Your task to perform on an android device: turn pop-ups off in chrome Image 0: 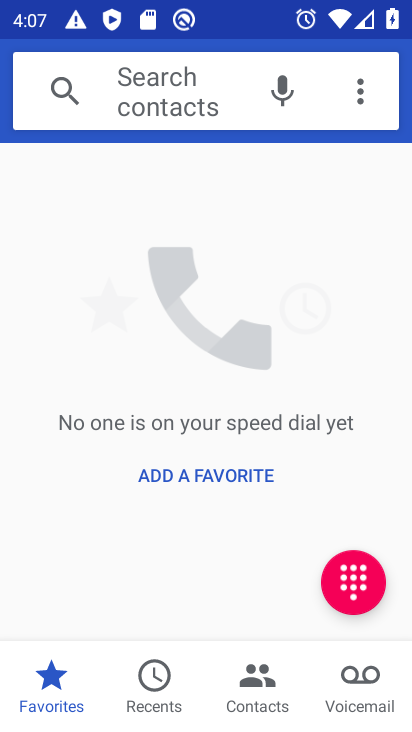
Step 0: press home button
Your task to perform on an android device: turn pop-ups off in chrome Image 1: 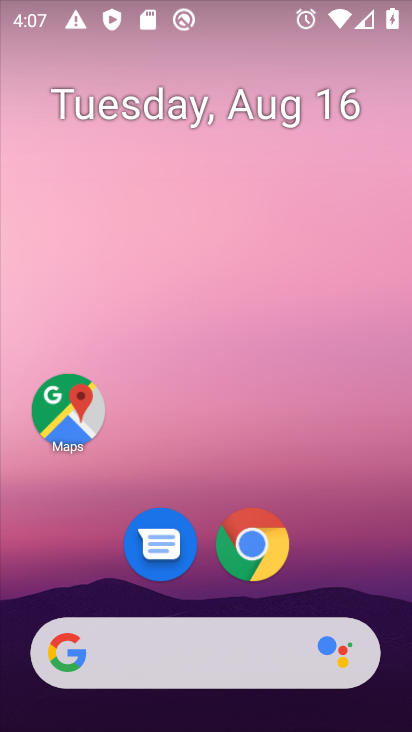
Step 1: click (220, 546)
Your task to perform on an android device: turn pop-ups off in chrome Image 2: 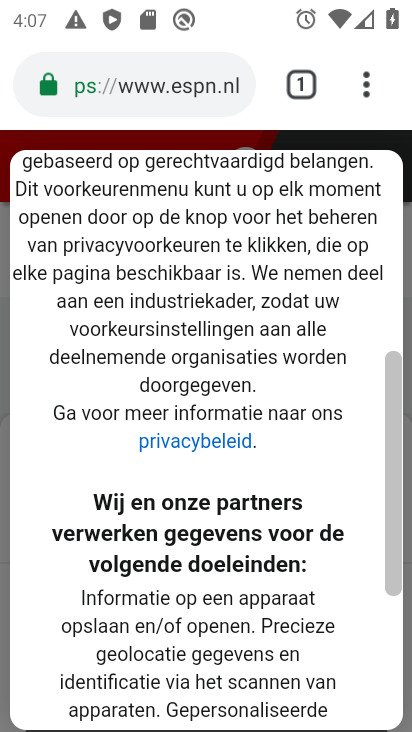
Step 2: click (363, 94)
Your task to perform on an android device: turn pop-ups off in chrome Image 3: 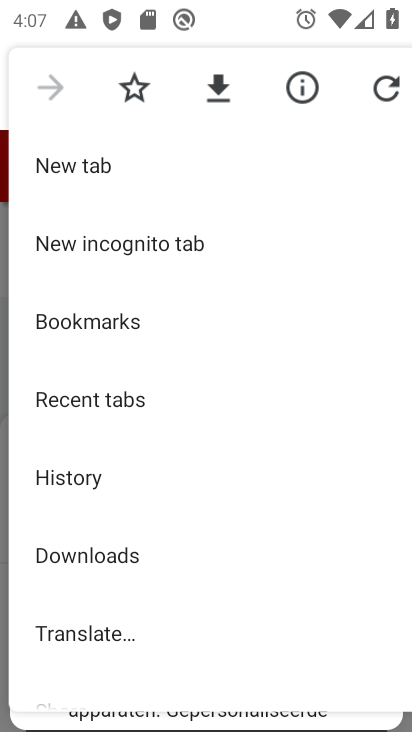
Step 3: drag from (157, 605) to (158, 211)
Your task to perform on an android device: turn pop-ups off in chrome Image 4: 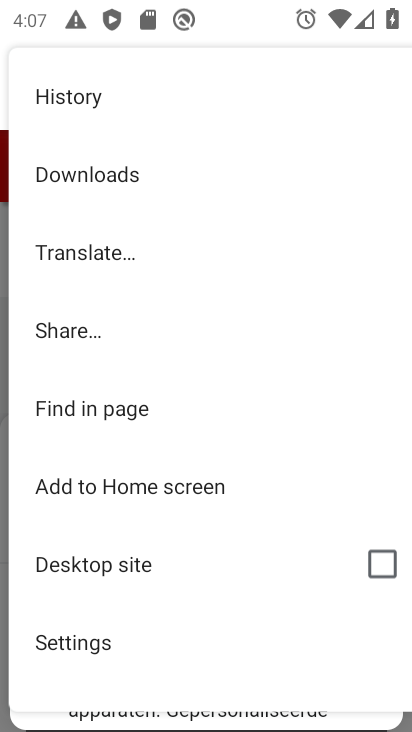
Step 4: click (139, 632)
Your task to perform on an android device: turn pop-ups off in chrome Image 5: 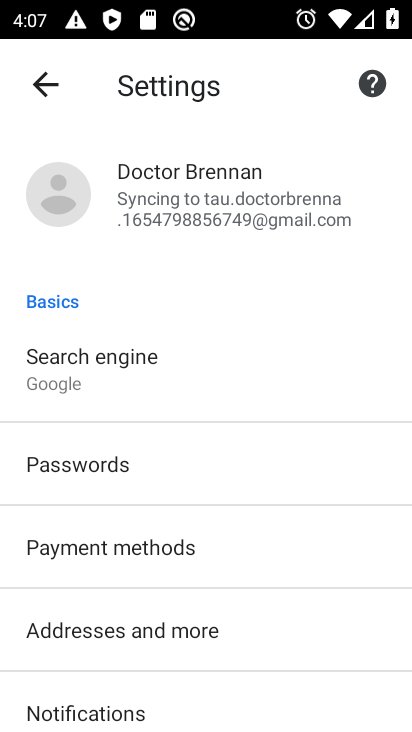
Step 5: drag from (121, 624) to (151, 277)
Your task to perform on an android device: turn pop-ups off in chrome Image 6: 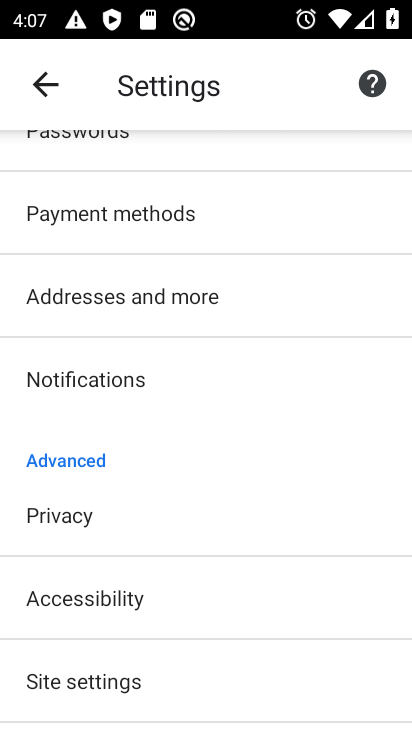
Step 6: drag from (171, 629) to (187, 279)
Your task to perform on an android device: turn pop-ups off in chrome Image 7: 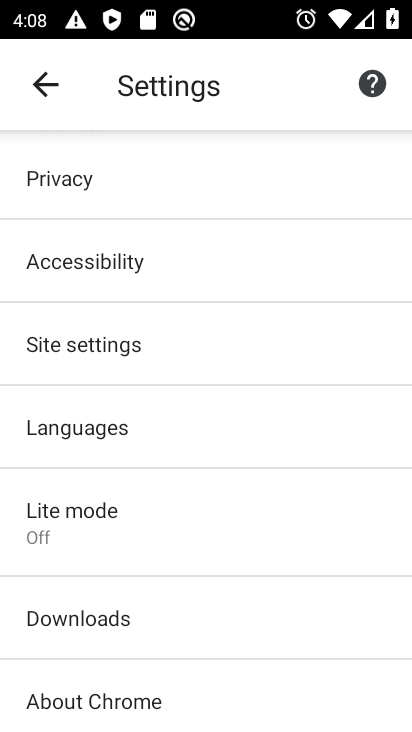
Step 7: click (93, 338)
Your task to perform on an android device: turn pop-ups off in chrome Image 8: 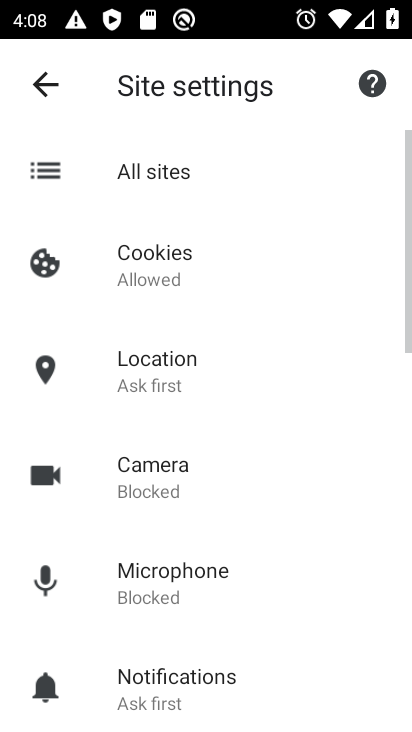
Step 8: drag from (191, 673) to (178, 209)
Your task to perform on an android device: turn pop-ups off in chrome Image 9: 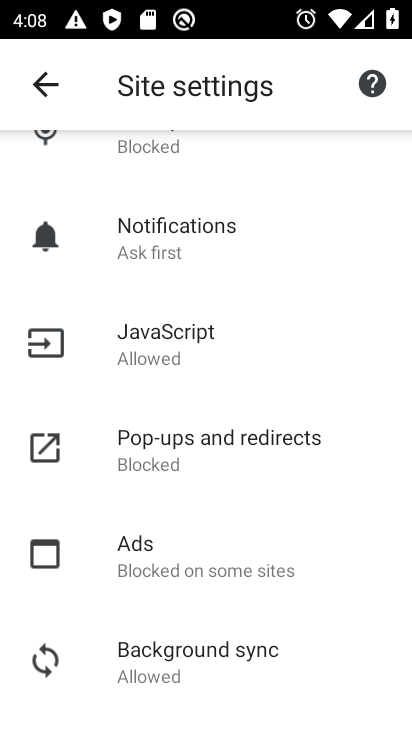
Step 9: click (199, 438)
Your task to perform on an android device: turn pop-ups off in chrome Image 10: 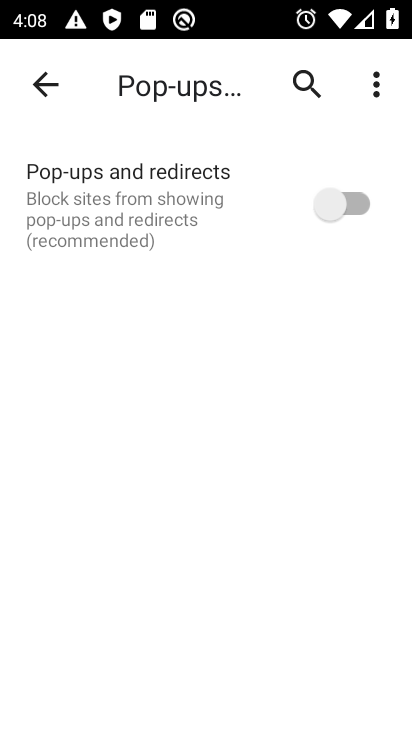
Step 10: task complete